Your task to perform on an android device: turn vacation reply on in the gmail app Image 0: 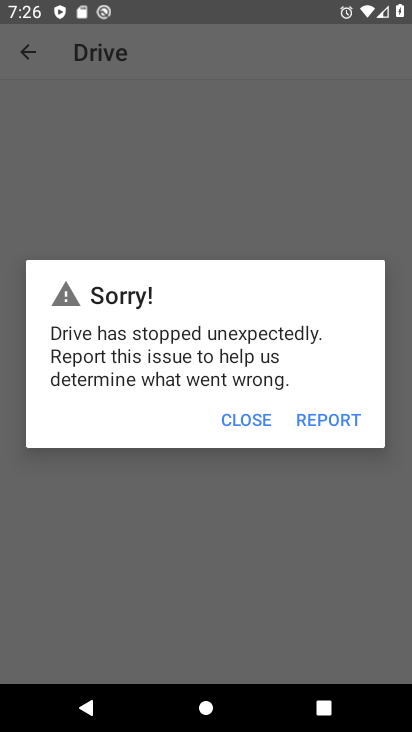
Step 0: press home button
Your task to perform on an android device: turn vacation reply on in the gmail app Image 1: 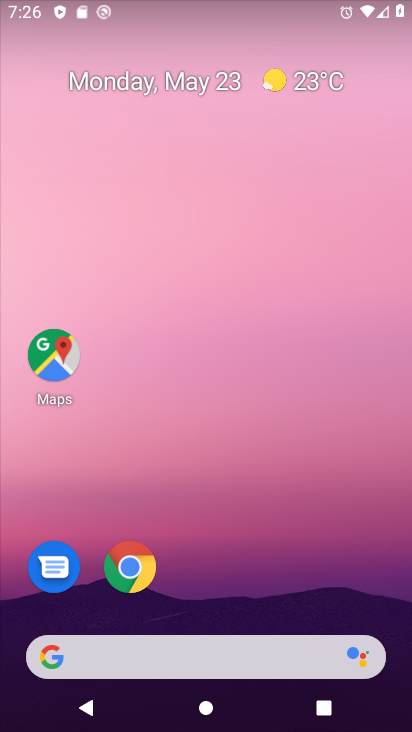
Step 1: drag from (226, 581) to (263, 274)
Your task to perform on an android device: turn vacation reply on in the gmail app Image 2: 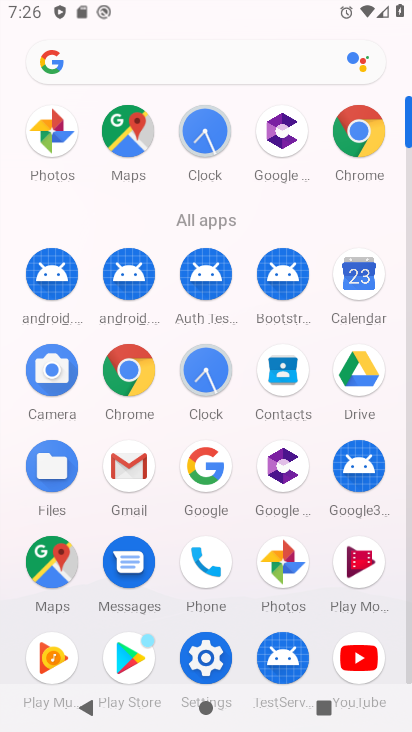
Step 2: click (121, 464)
Your task to perform on an android device: turn vacation reply on in the gmail app Image 3: 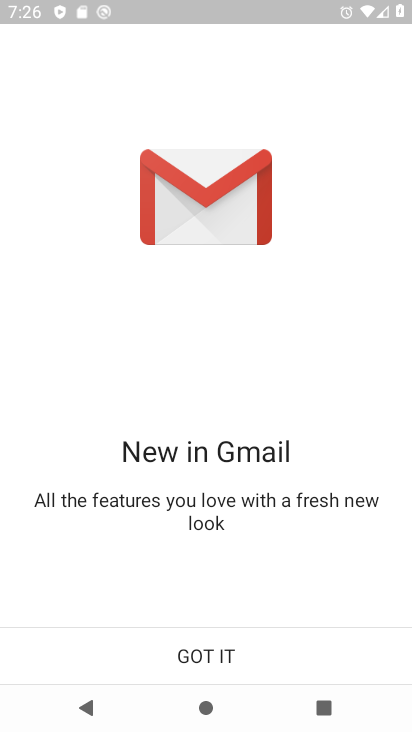
Step 3: click (217, 651)
Your task to perform on an android device: turn vacation reply on in the gmail app Image 4: 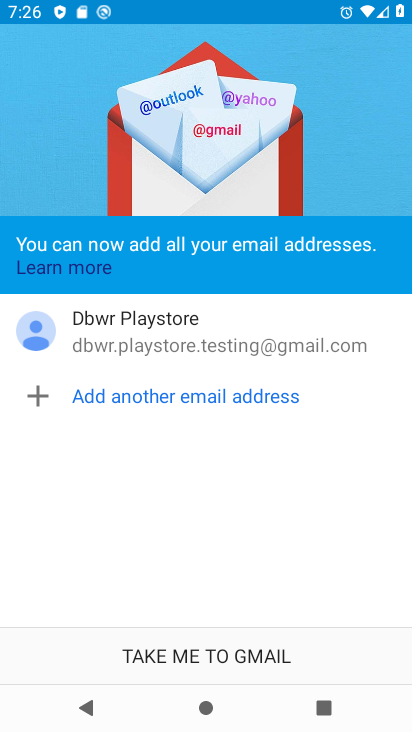
Step 4: click (214, 648)
Your task to perform on an android device: turn vacation reply on in the gmail app Image 5: 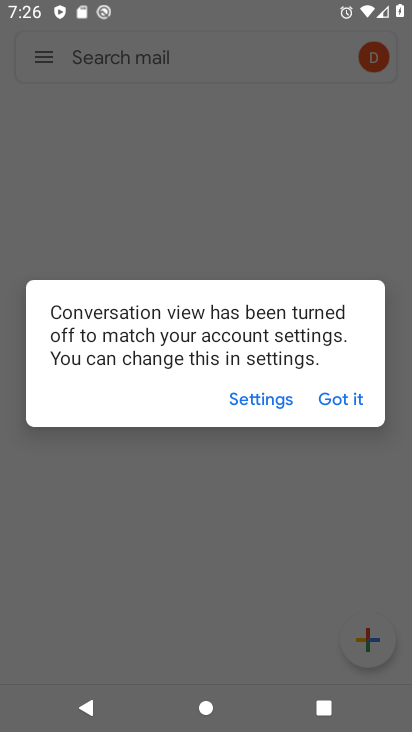
Step 5: click (344, 404)
Your task to perform on an android device: turn vacation reply on in the gmail app Image 6: 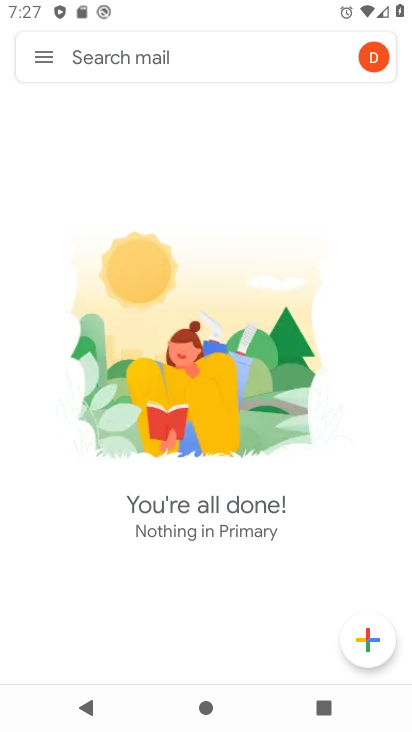
Step 6: click (47, 52)
Your task to perform on an android device: turn vacation reply on in the gmail app Image 7: 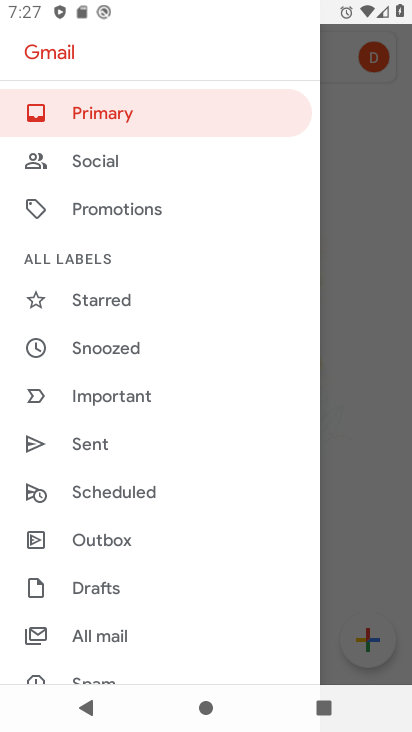
Step 7: drag from (149, 604) to (205, 280)
Your task to perform on an android device: turn vacation reply on in the gmail app Image 8: 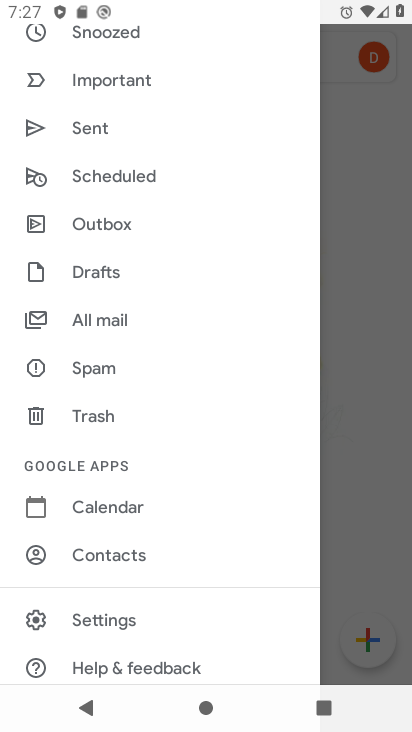
Step 8: click (120, 608)
Your task to perform on an android device: turn vacation reply on in the gmail app Image 9: 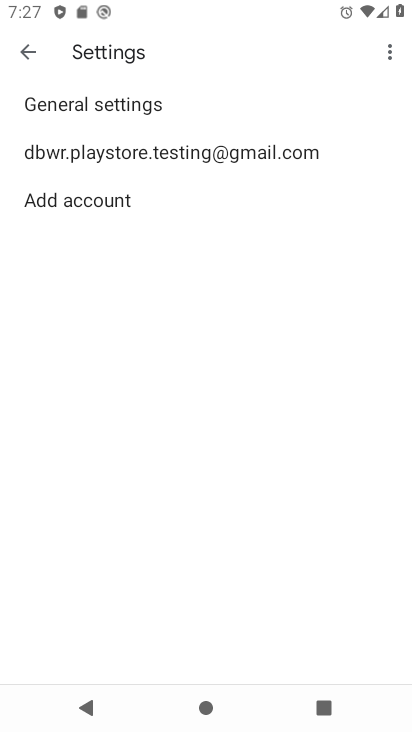
Step 9: click (126, 153)
Your task to perform on an android device: turn vacation reply on in the gmail app Image 10: 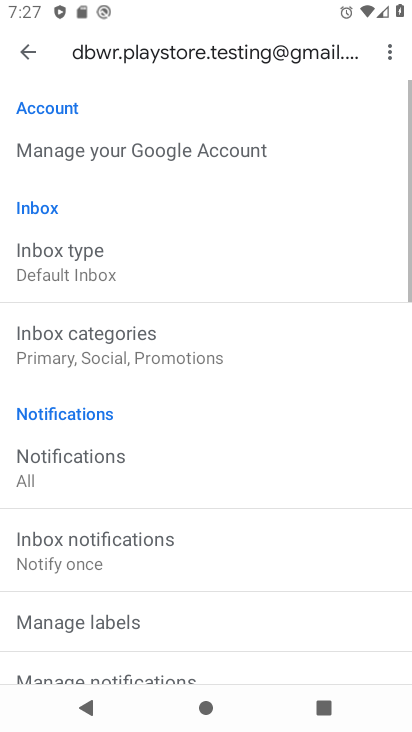
Step 10: drag from (123, 586) to (189, 219)
Your task to perform on an android device: turn vacation reply on in the gmail app Image 11: 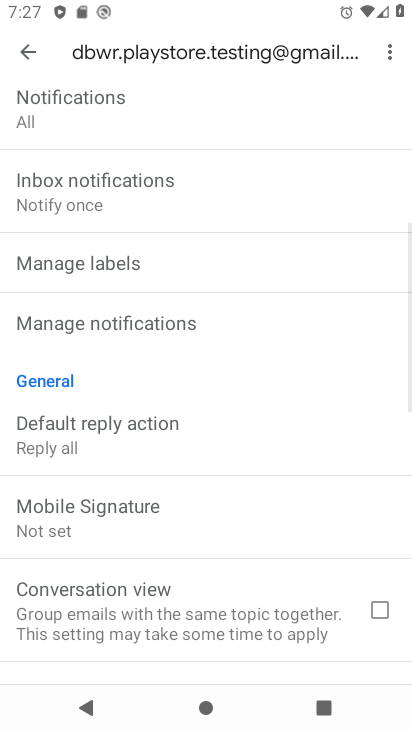
Step 11: drag from (207, 589) to (268, 194)
Your task to perform on an android device: turn vacation reply on in the gmail app Image 12: 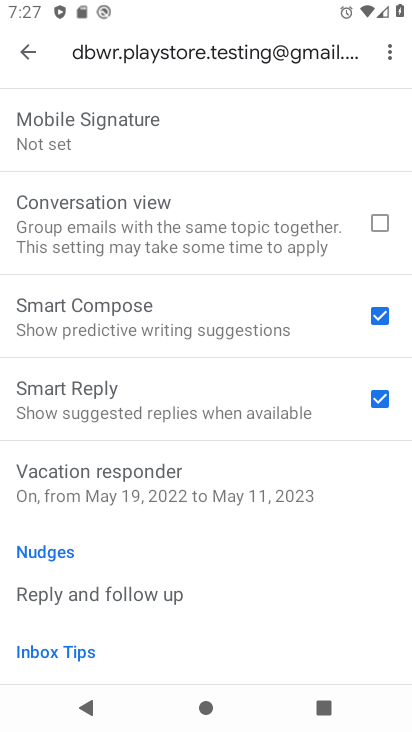
Step 12: click (177, 488)
Your task to perform on an android device: turn vacation reply on in the gmail app Image 13: 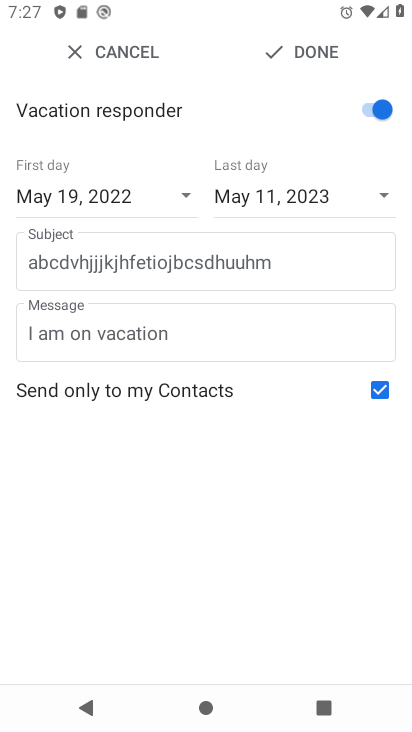
Step 13: task complete